Your task to perform on an android device: turn on the 24-hour format for clock Image 0: 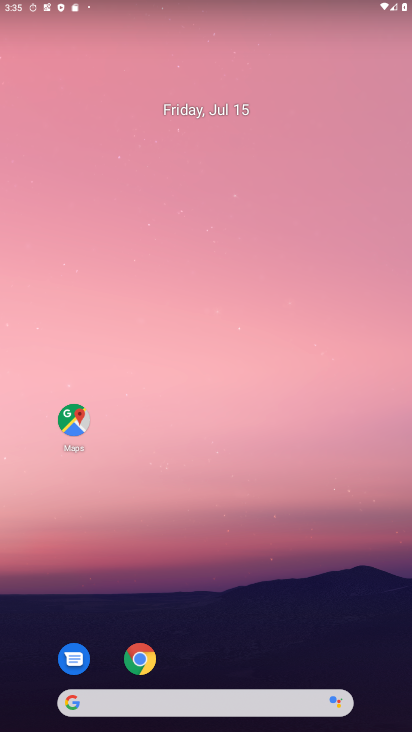
Step 0: drag from (300, 622) to (280, 90)
Your task to perform on an android device: turn on the 24-hour format for clock Image 1: 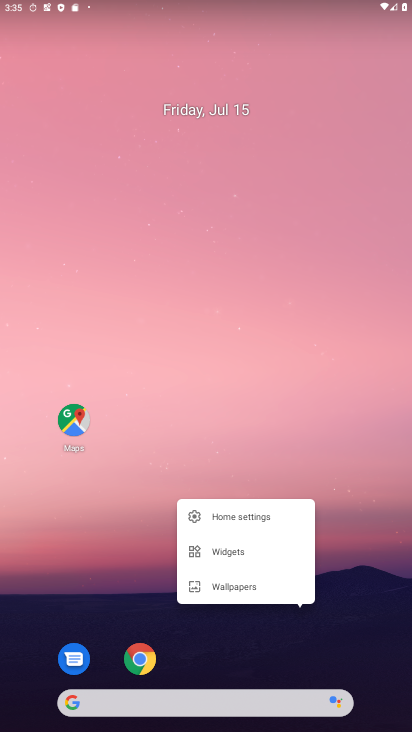
Step 1: click (292, 376)
Your task to perform on an android device: turn on the 24-hour format for clock Image 2: 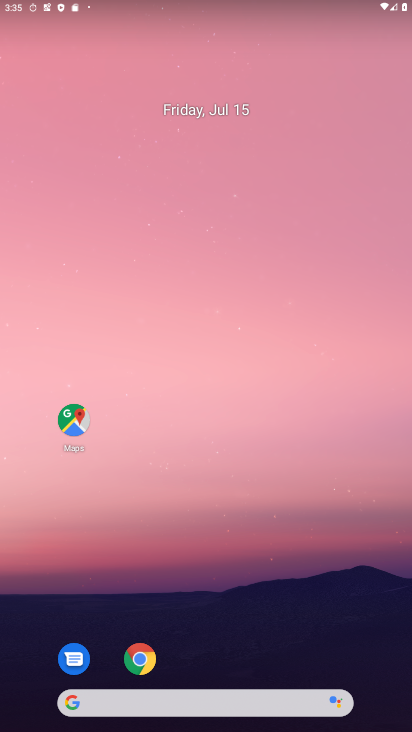
Step 2: drag from (310, 613) to (301, 4)
Your task to perform on an android device: turn on the 24-hour format for clock Image 3: 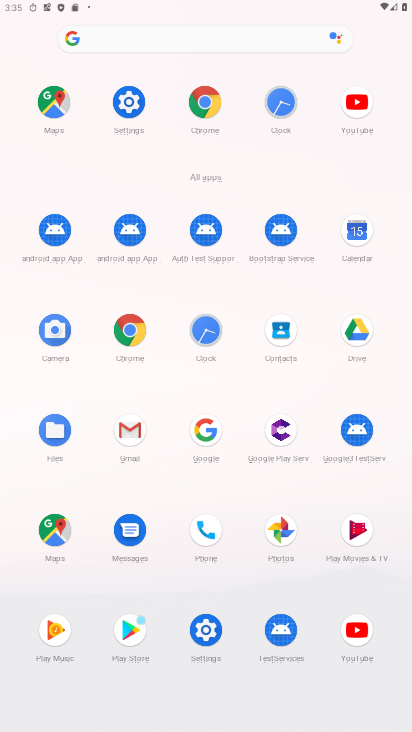
Step 3: click (205, 333)
Your task to perform on an android device: turn on the 24-hour format for clock Image 4: 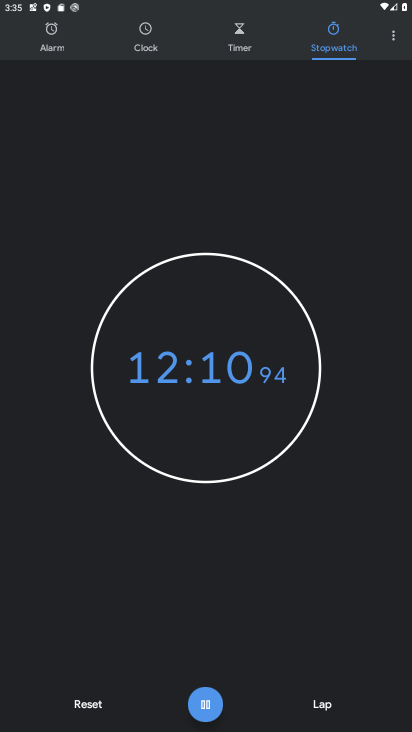
Step 4: click (396, 32)
Your task to perform on an android device: turn on the 24-hour format for clock Image 5: 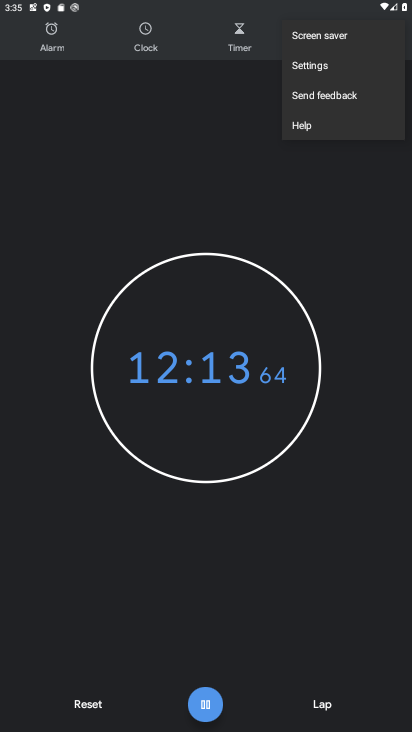
Step 5: click (301, 68)
Your task to perform on an android device: turn on the 24-hour format for clock Image 6: 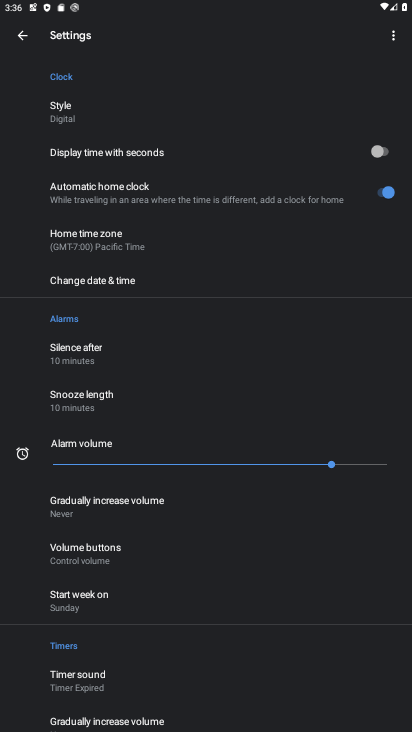
Step 6: click (113, 279)
Your task to perform on an android device: turn on the 24-hour format for clock Image 7: 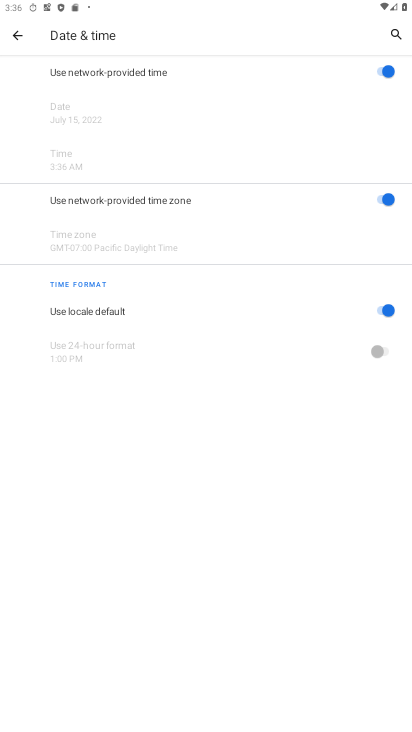
Step 7: click (377, 308)
Your task to perform on an android device: turn on the 24-hour format for clock Image 8: 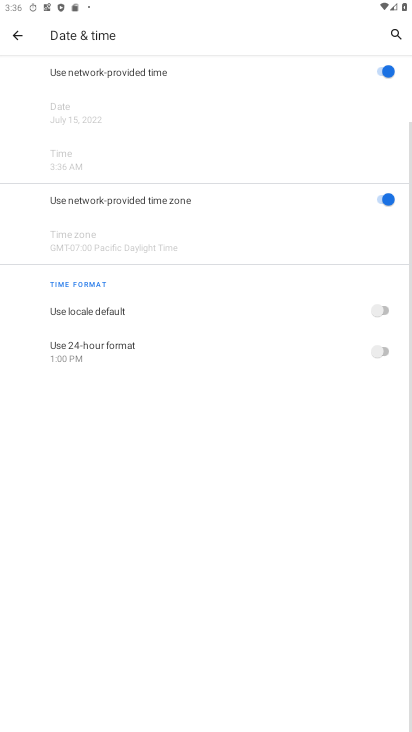
Step 8: click (382, 348)
Your task to perform on an android device: turn on the 24-hour format for clock Image 9: 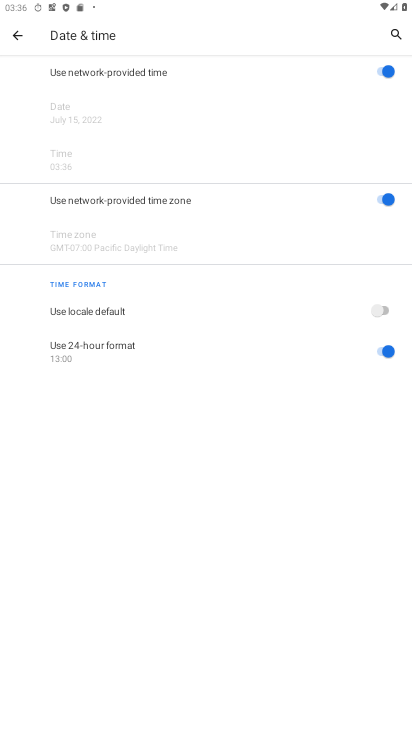
Step 9: task complete